Your task to perform on an android device: Open Android settings Image 0: 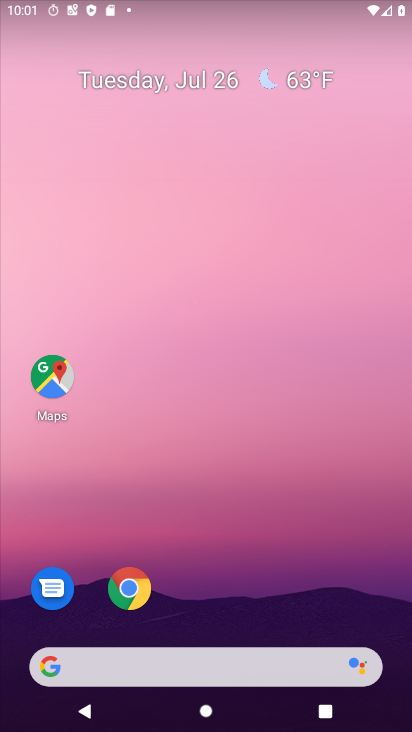
Step 0: drag from (206, 624) to (342, 4)
Your task to perform on an android device: Open Android settings Image 1: 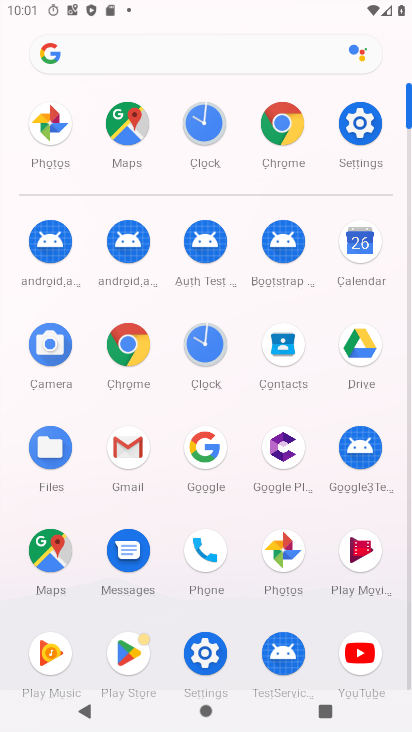
Step 1: click (350, 138)
Your task to perform on an android device: Open Android settings Image 2: 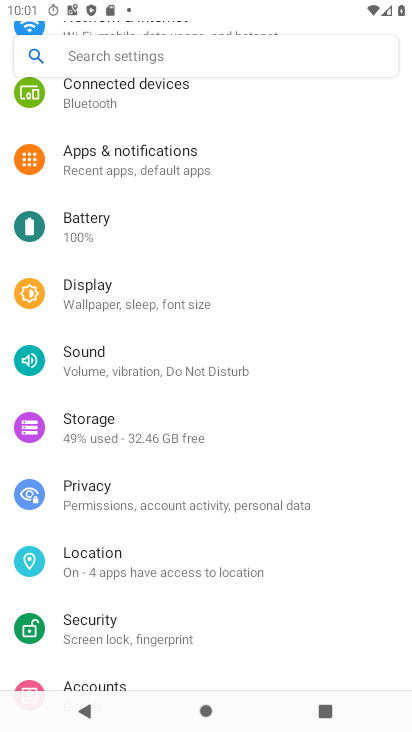
Step 2: task complete